Your task to perform on an android device: Search for flights from Mexico city to Zurich Image 0: 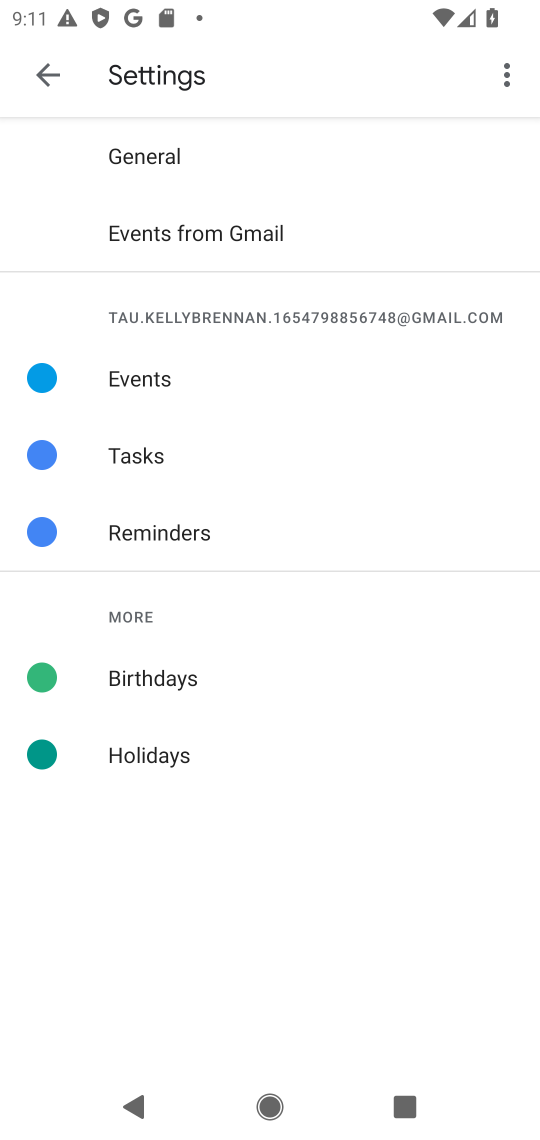
Step 0: press home button
Your task to perform on an android device: Search for flights from Mexico city to Zurich Image 1: 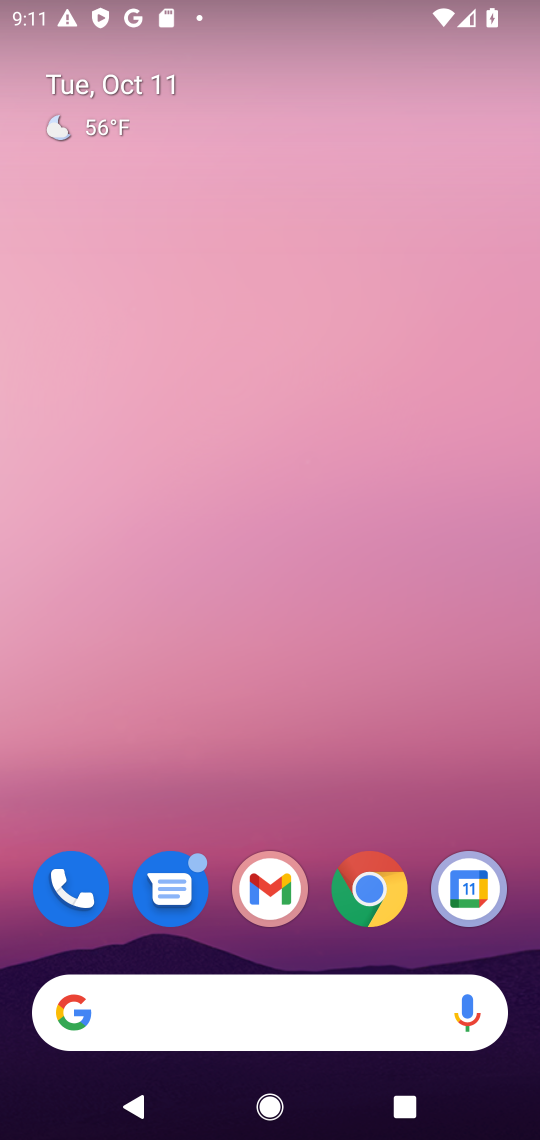
Step 1: click (304, 1023)
Your task to perform on an android device: Search for flights from Mexico city to Zurich Image 2: 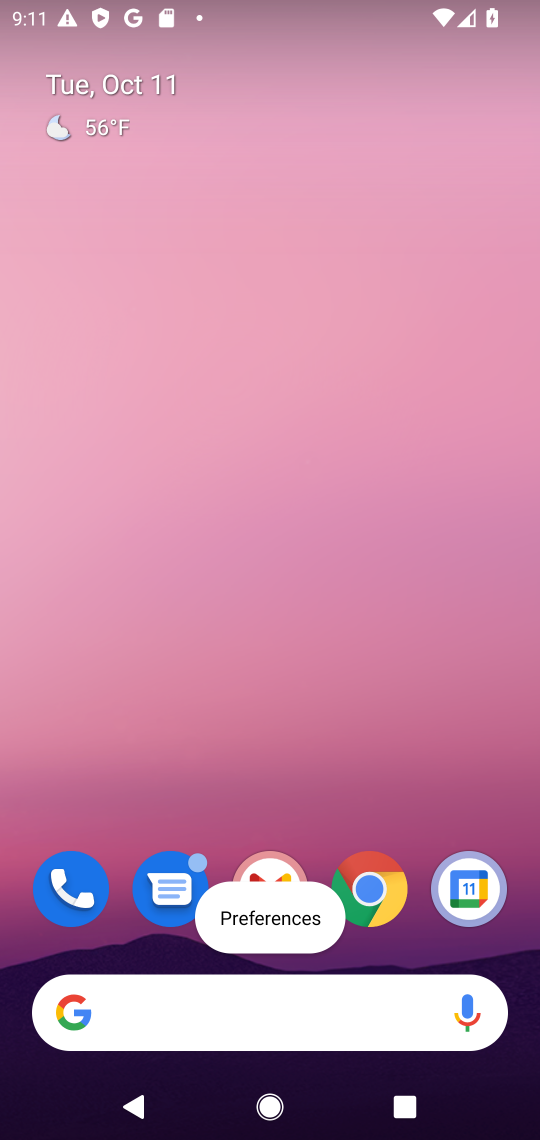
Step 2: click (163, 992)
Your task to perform on an android device: Search for flights from Mexico city to Zurich Image 3: 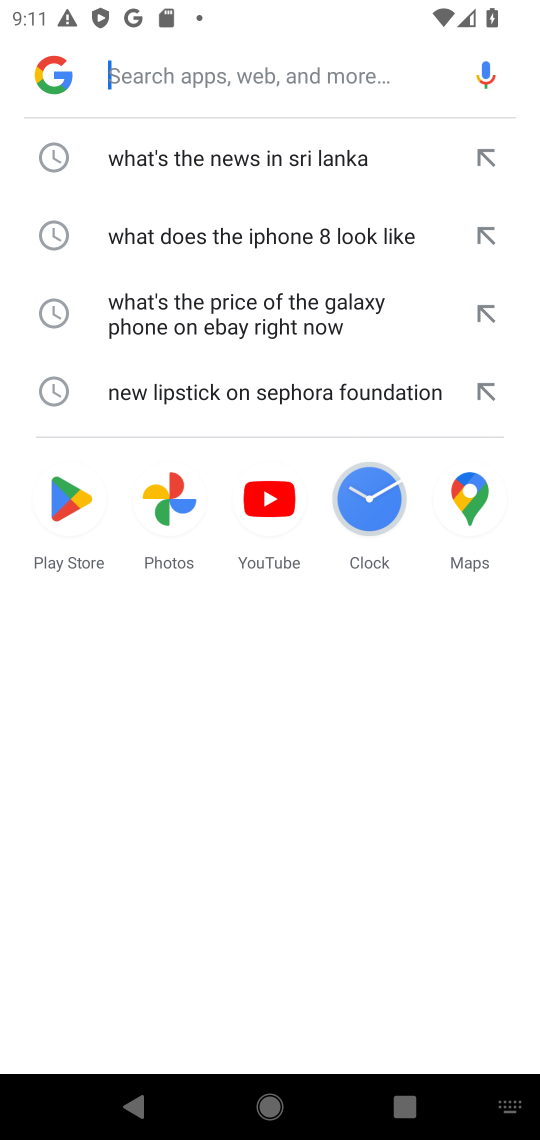
Step 3: click (173, 74)
Your task to perform on an android device: Search for flights from Mexico city to Zurich Image 4: 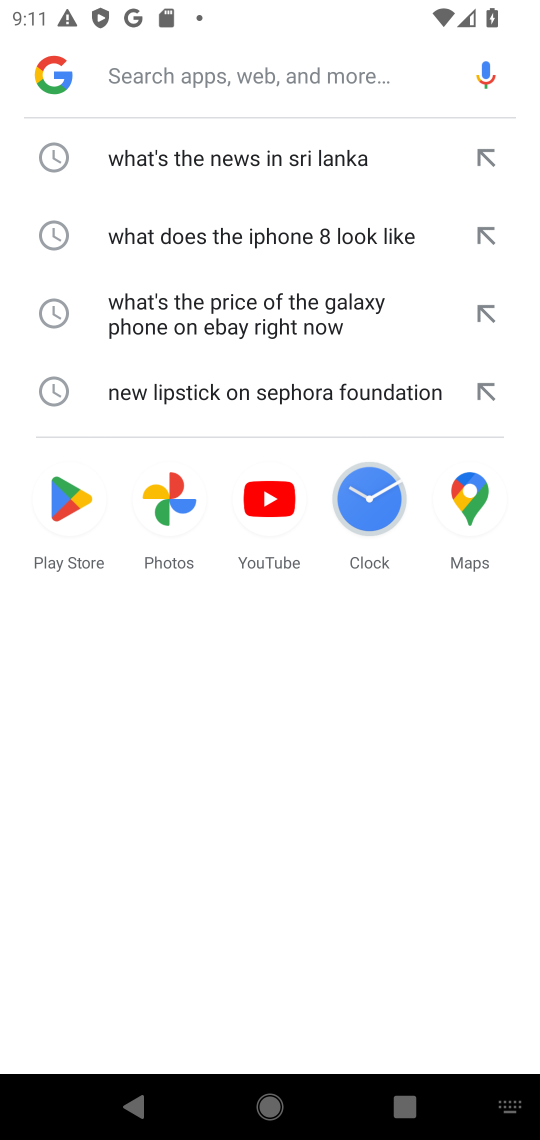
Step 4: type "flights from Mexico city to Zurich"
Your task to perform on an android device: Search for flights from Mexico city to Zurich Image 5: 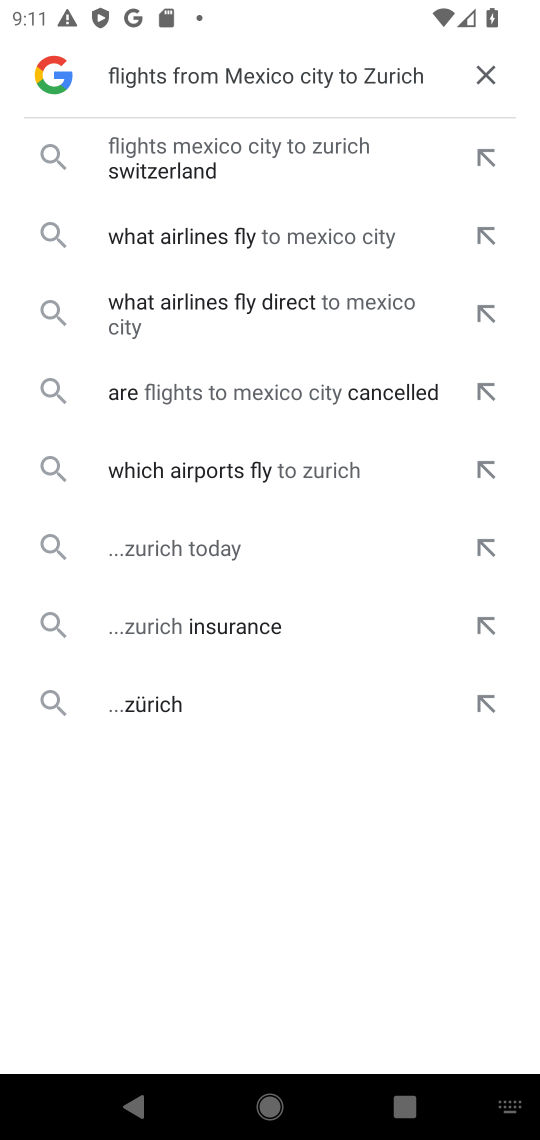
Step 5: click (188, 159)
Your task to perform on an android device: Search for flights from Mexico city to Zurich Image 6: 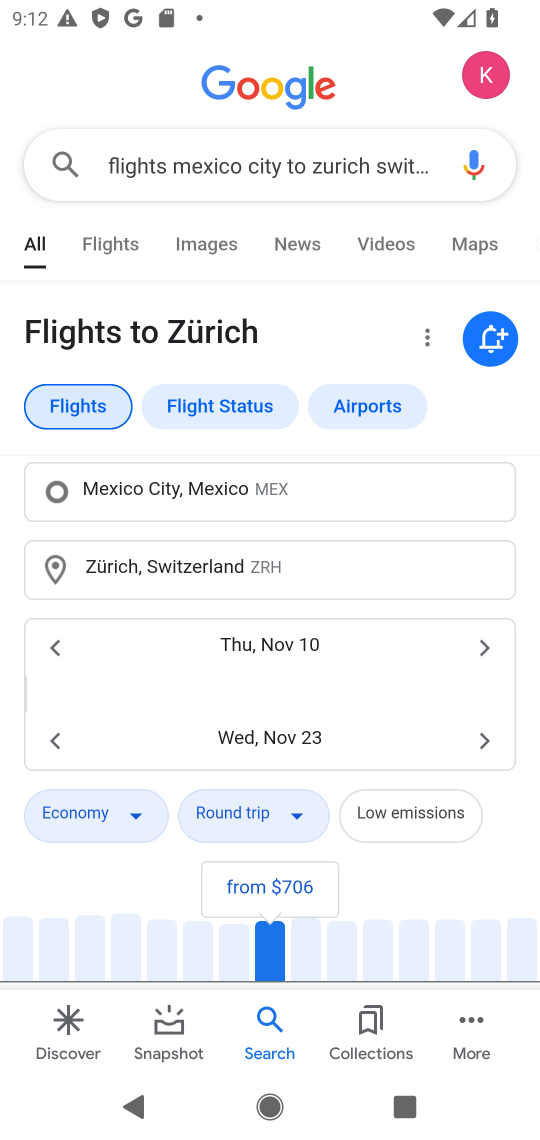
Step 6: task complete